Your task to perform on an android device: open a bookmark in the chrome app Image 0: 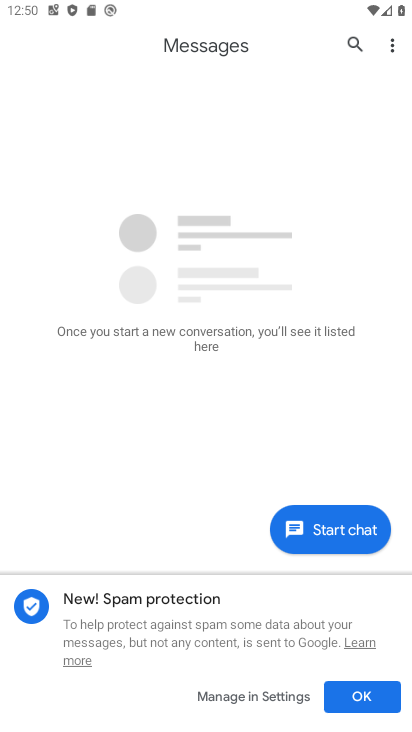
Step 0: press home button
Your task to perform on an android device: open a bookmark in the chrome app Image 1: 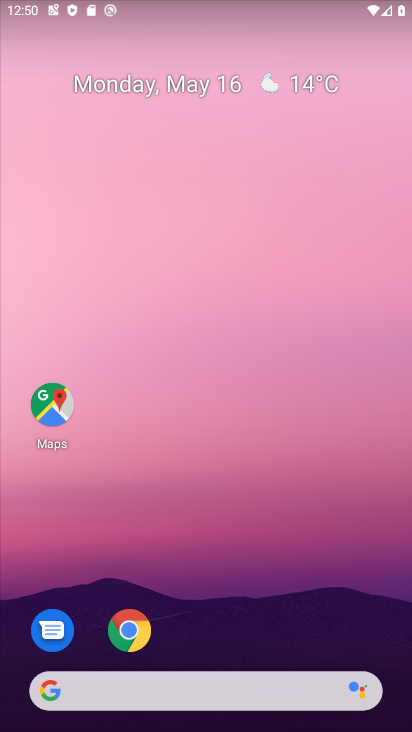
Step 1: click (140, 619)
Your task to perform on an android device: open a bookmark in the chrome app Image 2: 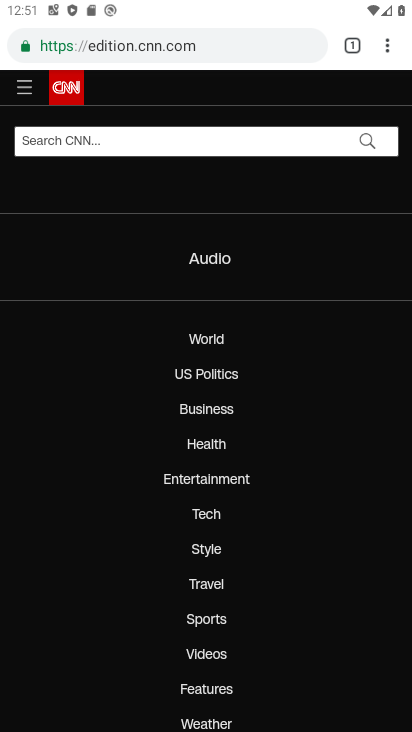
Step 2: click (381, 43)
Your task to perform on an android device: open a bookmark in the chrome app Image 3: 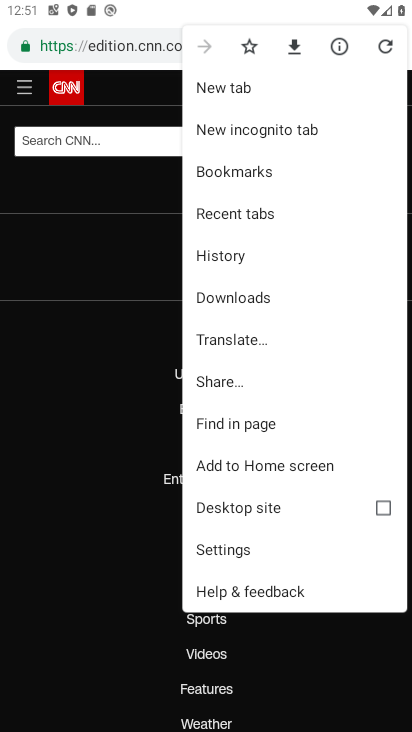
Step 3: click (250, 170)
Your task to perform on an android device: open a bookmark in the chrome app Image 4: 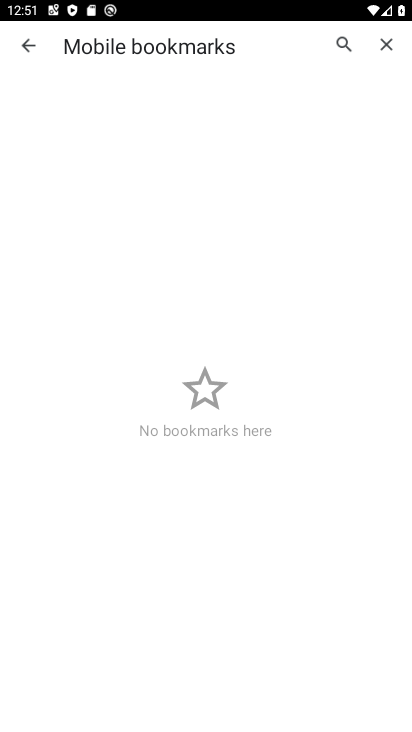
Step 4: task complete